Your task to perform on an android device: Show me the alarms in the clock app Image 0: 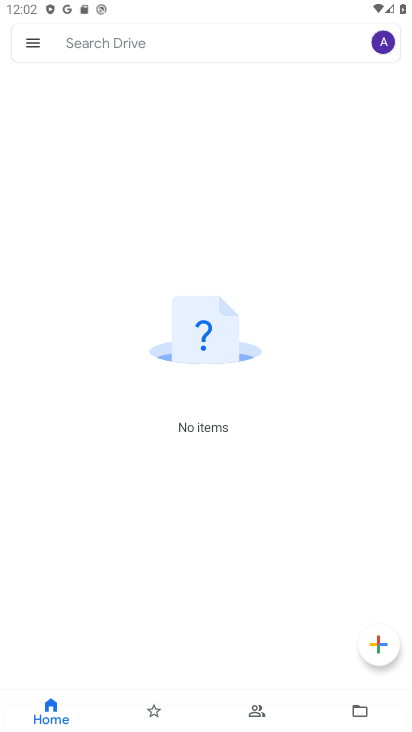
Step 0: press home button
Your task to perform on an android device: Show me the alarms in the clock app Image 1: 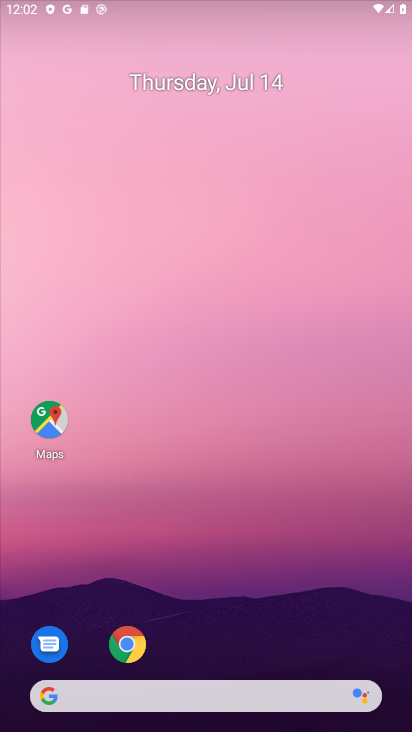
Step 1: drag from (314, 558) to (367, 14)
Your task to perform on an android device: Show me the alarms in the clock app Image 2: 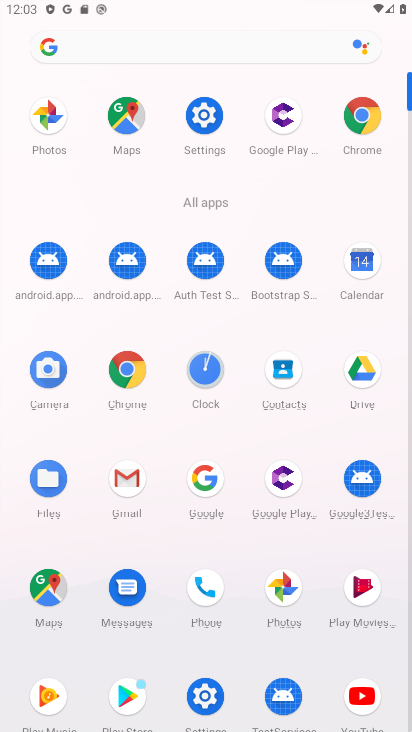
Step 2: click (201, 379)
Your task to perform on an android device: Show me the alarms in the clock app Image 3: 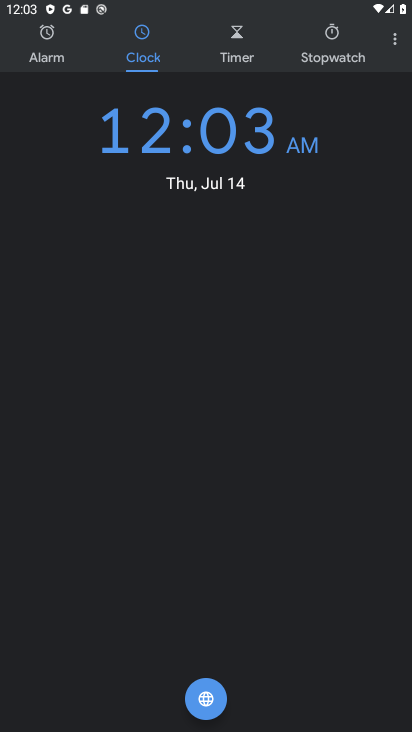
Step 3: click (52, 37)
Your task to perform on an android device: Show me the alarms in the clock app Image 4: 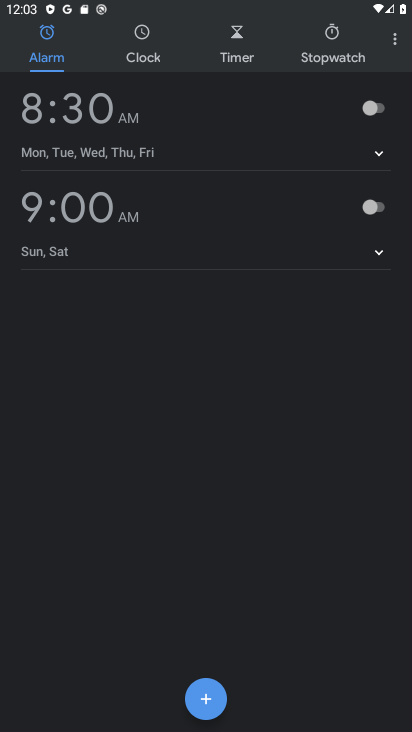
Step 4: task complete